Your task to perform on an android device: turn on translation in the chrome app Image 0: 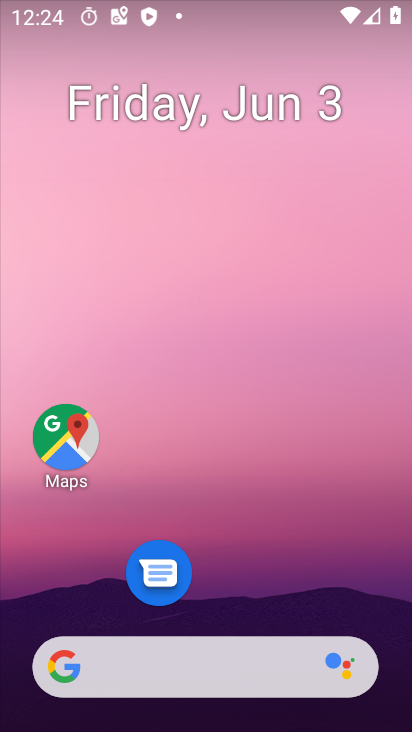
Step 0: drag from (346, 552) to (386, 11)
Your task to perform on an android device: turn on translation in the chrome app Image 1: 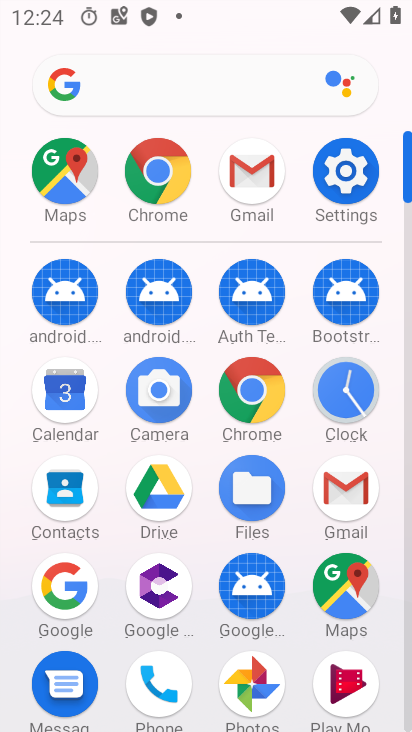
Step 1: click (265, 390)
Your task to perform on an android device: turn on translation in the chrome app Image 2: 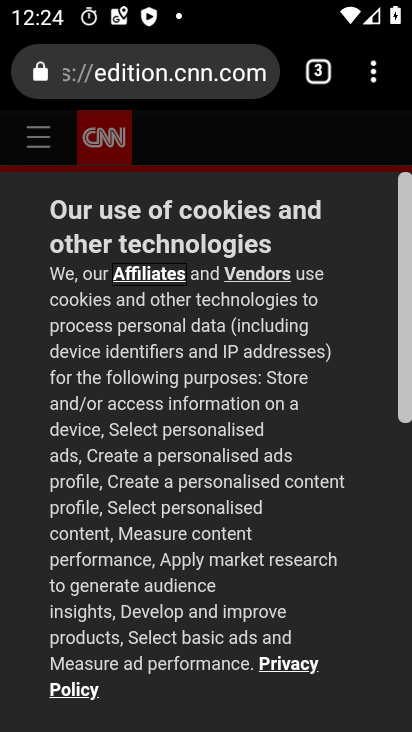
Step 2: drag from (378, 65) to (181, 574)
Your task to perform on an android device: turn on translation in the chrome app Image 3: 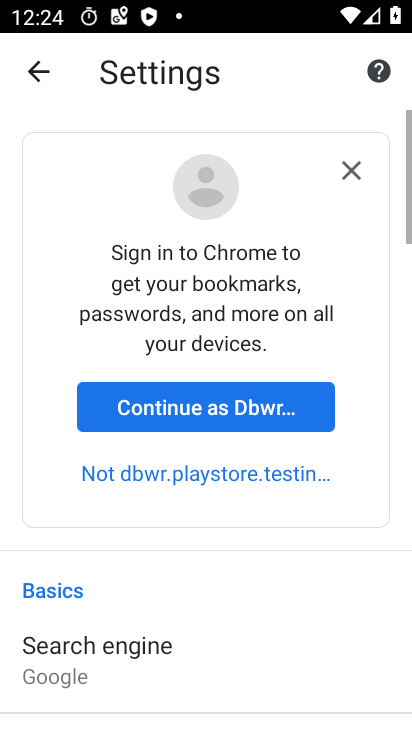
Step 3: drag from (293, 524) to (299, 102)
Your task to perform on an android device: turn on translation in the chrome app Image 4: 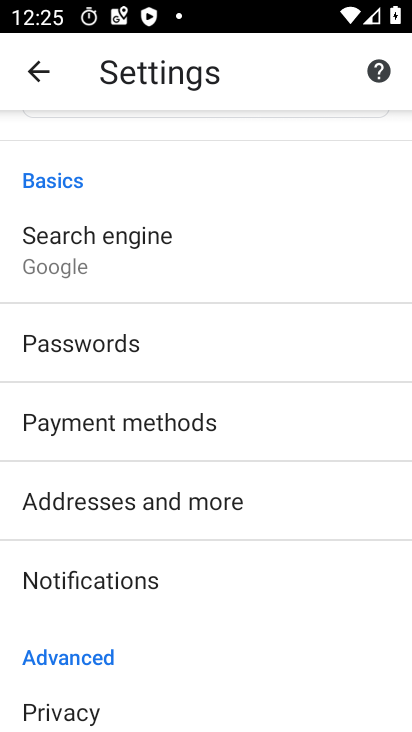
Step 4: drag from (163, 711) to (233, 281)
Your task to perform on an android device: turn on translation in the chrome app Image 5: 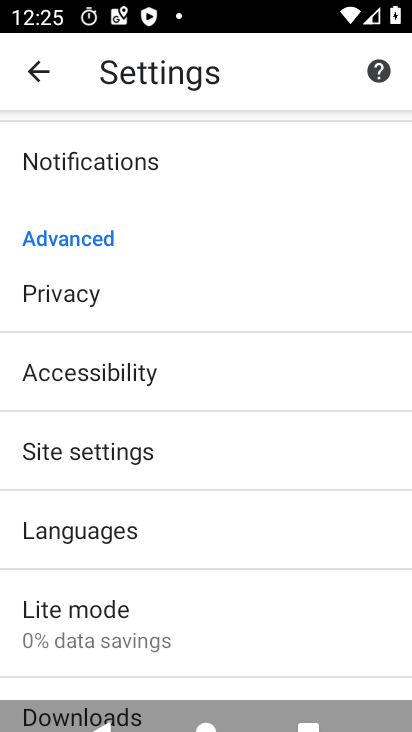
Step 5: click (149, 520)
Your task to perform on an android device: turn on translation in the chrome app Image 6: 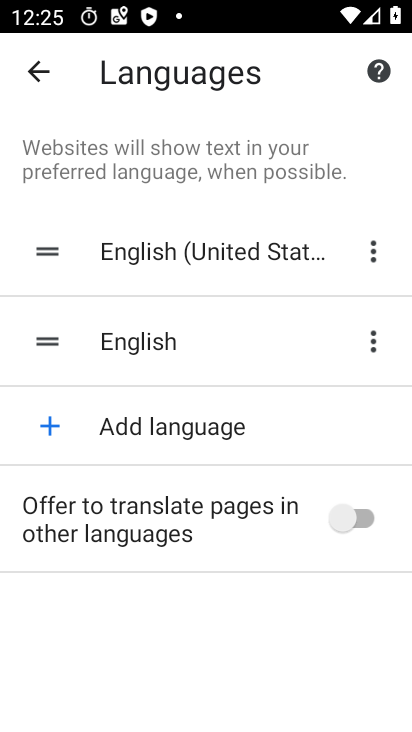
Step 6: click (370, 517)
Your task to perform on an android device: turn on translation in the chrome app Image 7: 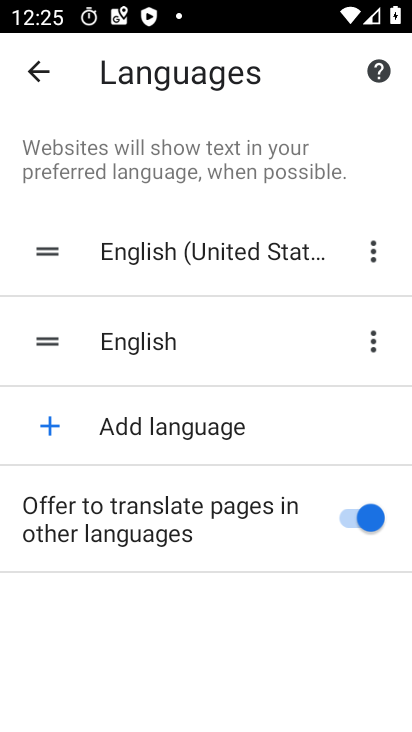
Step 7: task complete